Your task to perform on an android device: turn on the 12-hour format for clock Image 0: 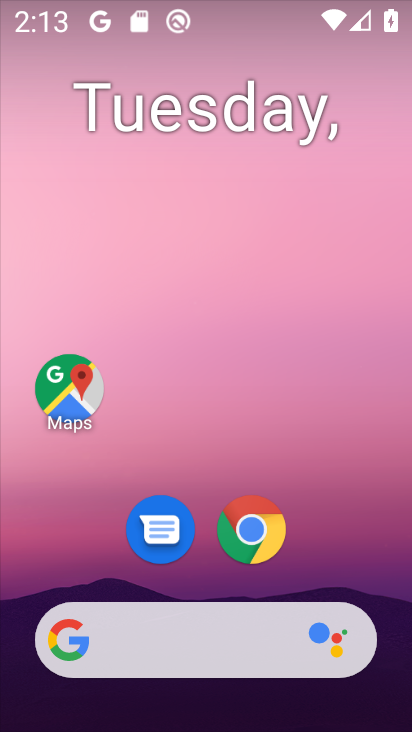
Step 0: drag from (388, 580) to (409, 149)
Your task to perform on an android device: turn on the 12-hour format for clock Image 1: 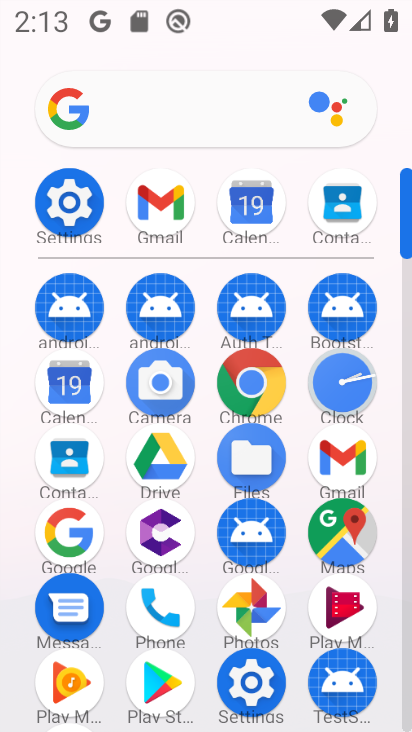
Step 1: click (338, 385)
Your task to perform on an android device: turn on the 12-hour format for clock Image 2: 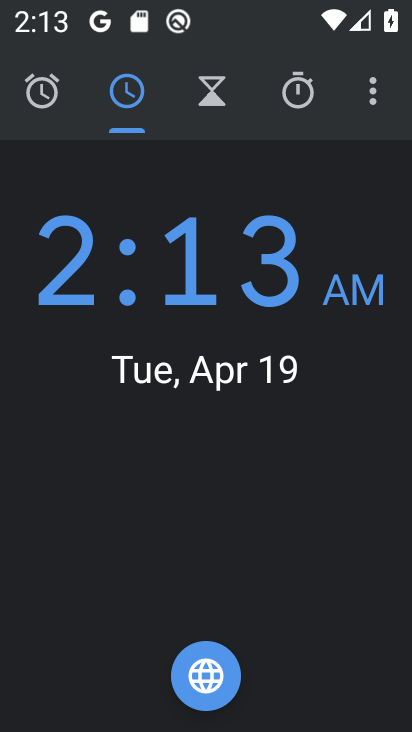
Step 2: click (368, 88)
Your task to perform on an android device: turn on the 12-hour format for clock Image 3: 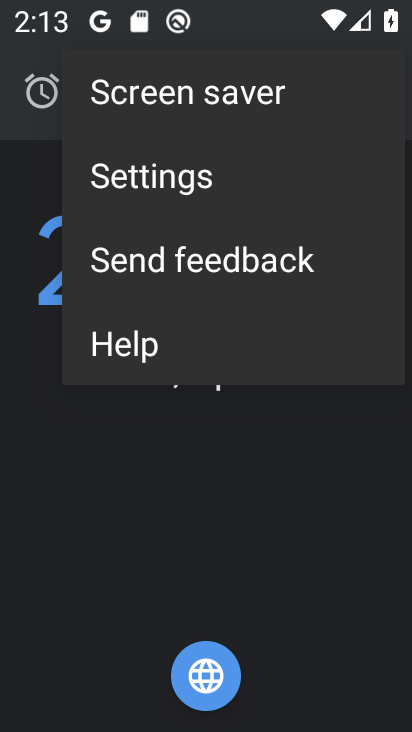
Step 3: click (146, 173)
Your task to perform on an android device: turn on the 12-hour format for clock Image 4: 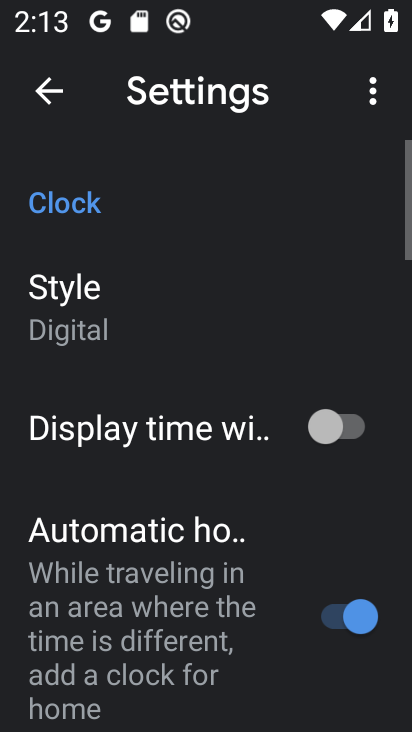
Step 4: drag from (239, 655) to (229, 161)
Your task to perform on an android device: turn on the 12-hour format for clock Image 5: 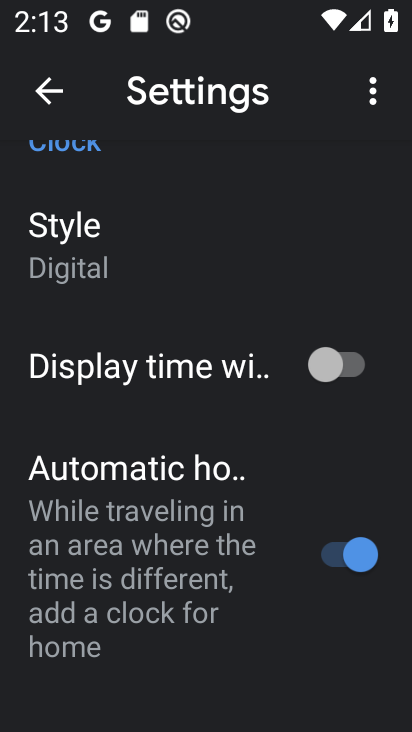
Step 5: drag from (234, 521) to (230, 229)
Your task to perform on an android device: turn on the 12-hour format for clock Image 6: 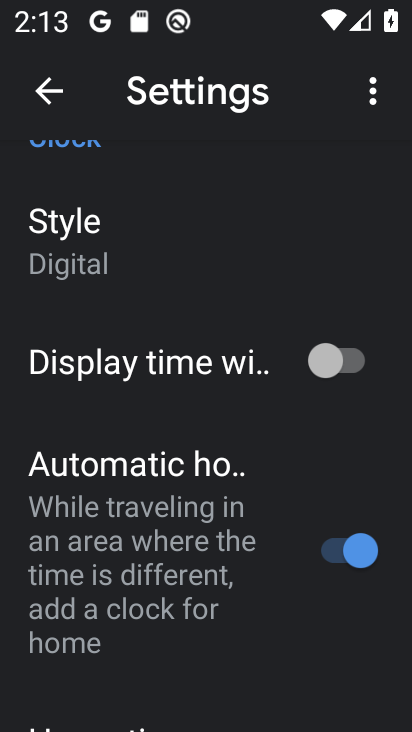
Step 6: drag from (386, 339) to (390, 142)
Your task to perform on an android device: turn on the 12-hour format for clock Image 7: 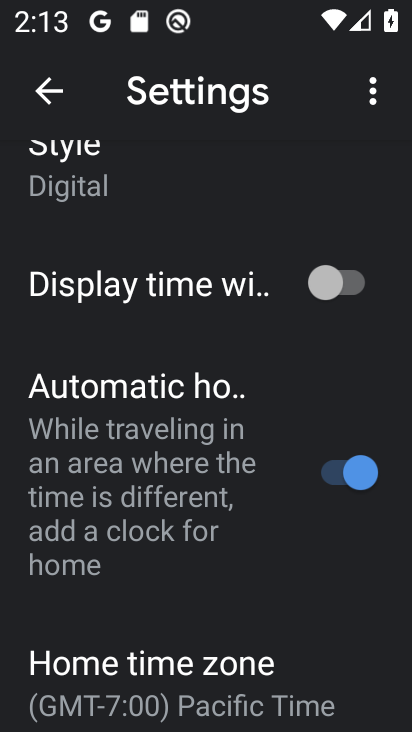
Step 7: click (409, 229)
Your task to perform on an android device: turn on the 12-hour format for clock Image 8: 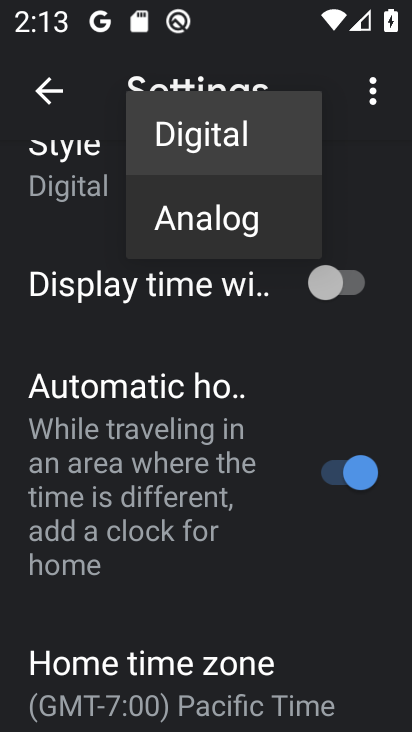
Step 8: click (400, 251)
Your task to perform on an android device: turn on the 12-hour format for clock Image 9: 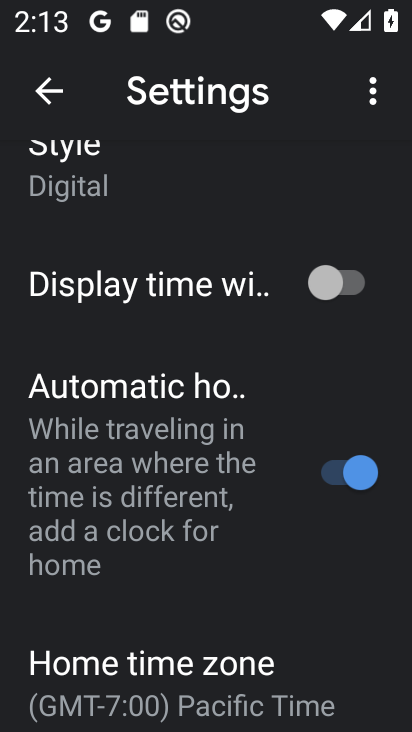
Step 9: drag from (404, 303) to (410, 156)
Your task to perform on an android device: turn on the 12-hour format for clock Image 10: 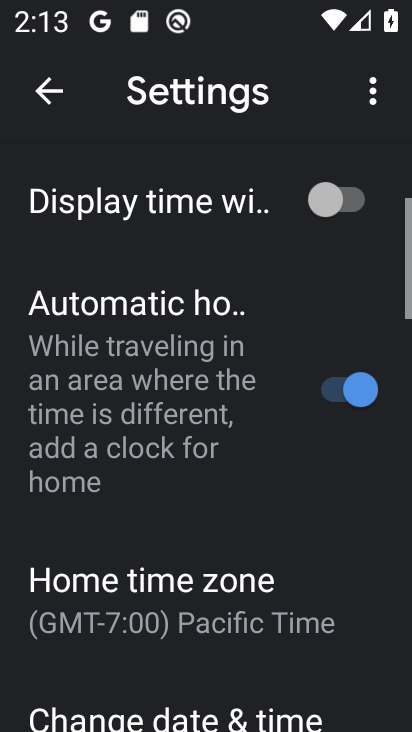
Step 10: drag from (396, 357) to (398, 86)
Your task to perform on an android device: turn on the 12-hour format for clock Image 11: 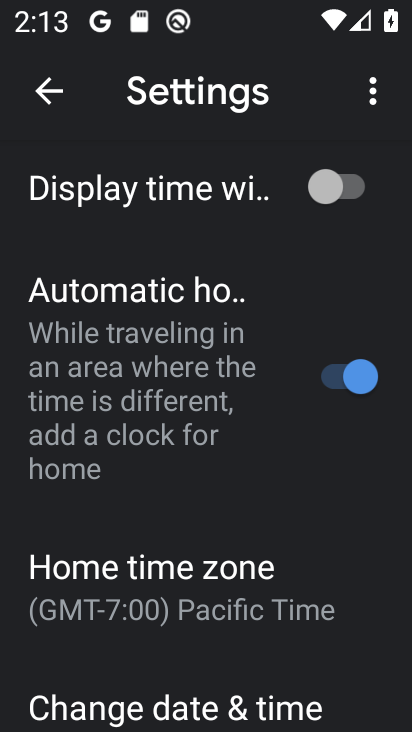
Step 11: drag from (408, 316) to (408, 123)
Your task to perform on an android device: turn on the 12-hour format for clock Image 12: 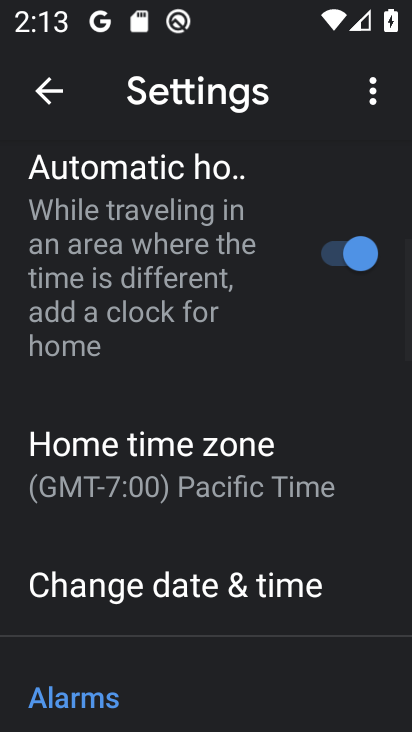
Step 12: drag from (408, 280) to (411, 115)
Your task to perform on an android device: turn on the 12-hour format for clock Image 13: 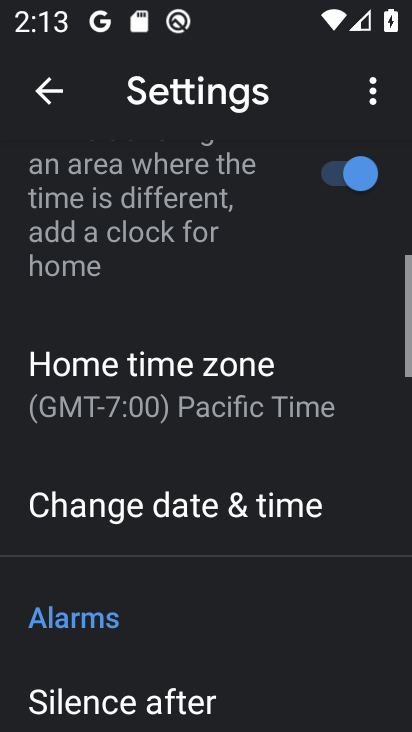
Step 13: click (222, 579)
Your task to perform on an android device: turn on the 12-hour format for clock Image 14: 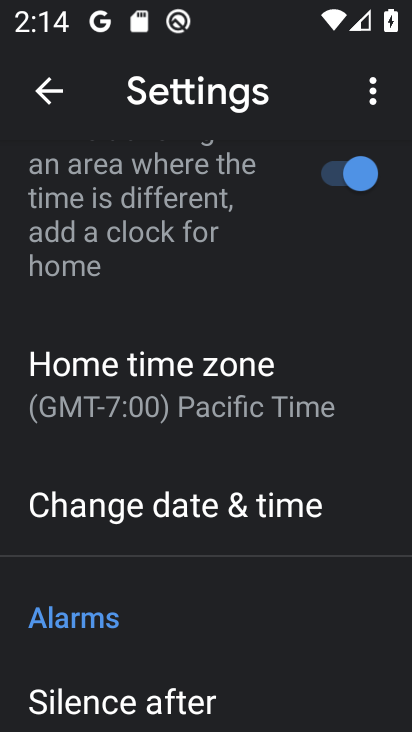
Step 14: click (148, 503)
Your task to perform on an android device: turn on the 12-hour format for clock Image 15: 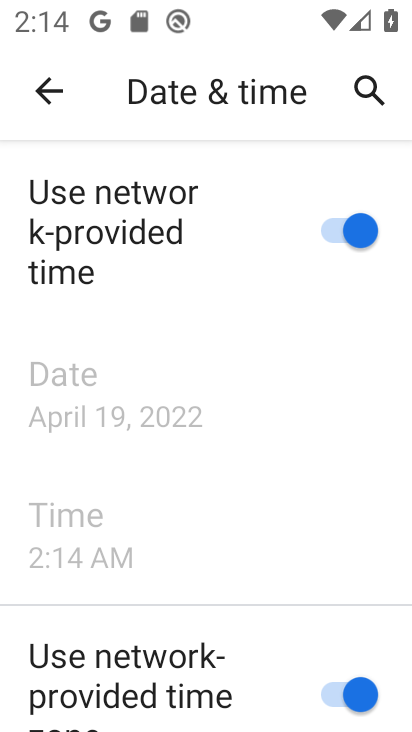
Step 15: task complete